Your task to perform on an android device: toggle notification dots Image 0: 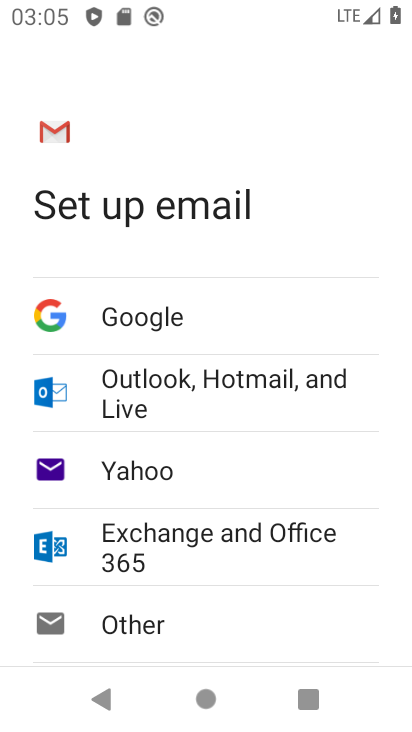
Step 0: press home button
Your task to perform on an android device: toggle notification dots Image 1: 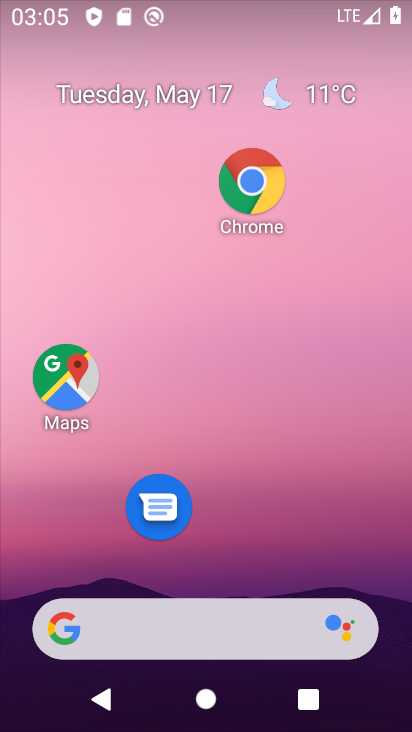
Step 1: drag from (235, 577) to (242, 390)
Your task to perform on an android device: toggle notification dots Image 2: 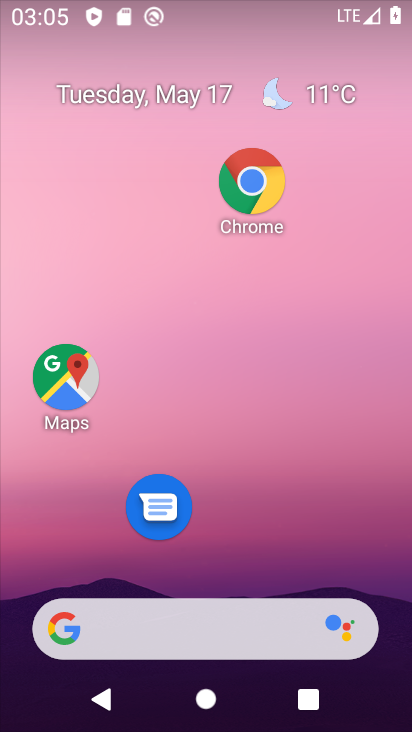
Step 2: drag from (203, 579) to (396, 367)
Your task to perform on an android device: toggle notification dots Image 3: 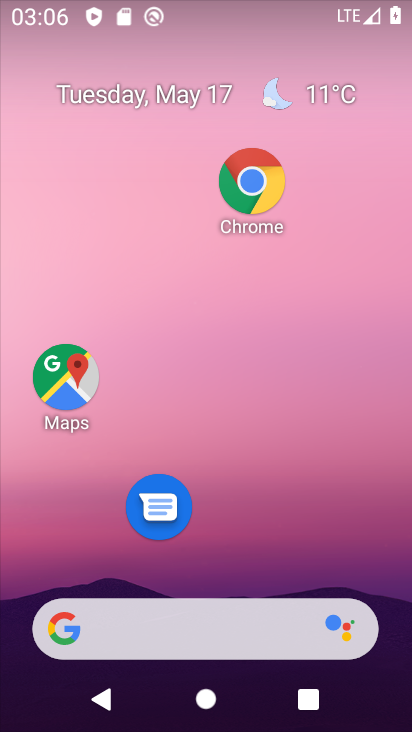
Step 3: drag from (220, 581) to (300, 191)
Your task to perform on an android device: toggle notification dots Image 4: 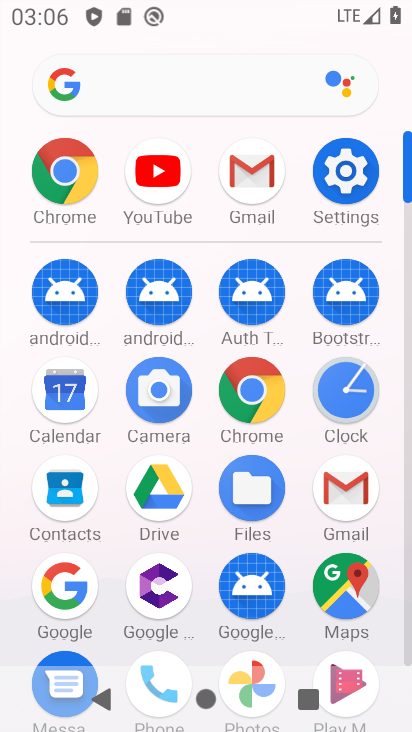
Step 4: click (358, 165)
Your task to perform on an android device: toggle notification dots Image 5: 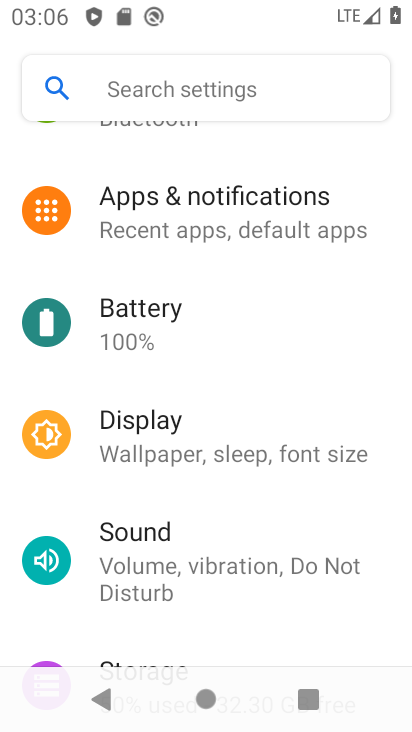
Step 5: click (224, 244)
Your task to perform on an android device: toggle notification dots Image 6: 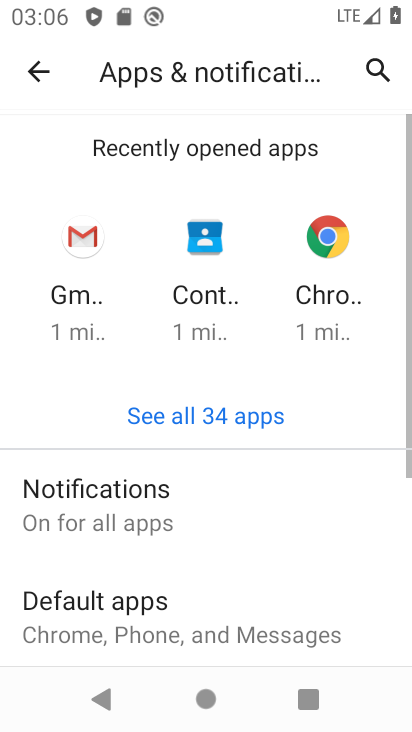
Step 6: drag from (161, 590) to (245, 145)
Your task to perform on an android device: toggle notification dots Image 7: 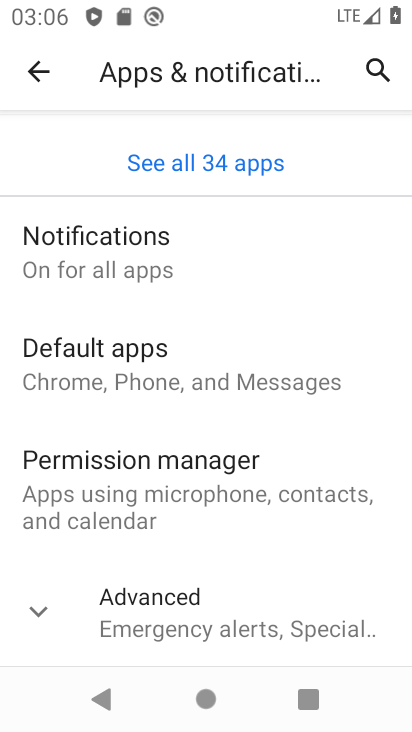
Step 7: click (154, 279)
Your task to perform on an android device: toggle notification dots Image 8: 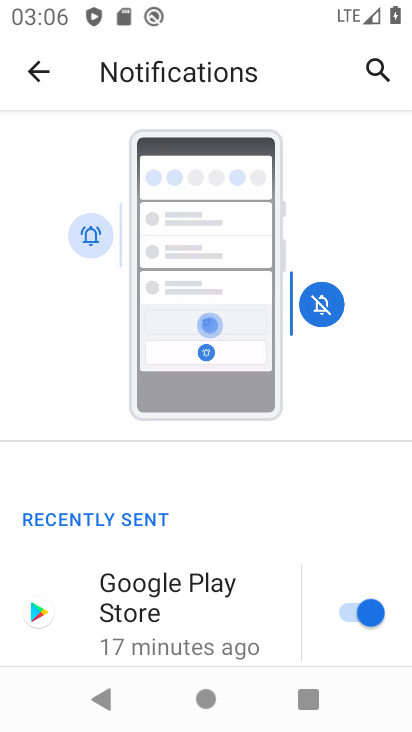
Step 8: drag from (204, 548) to (220, 49)
Your task to perform on an android device: toggle notification dots Image 9: 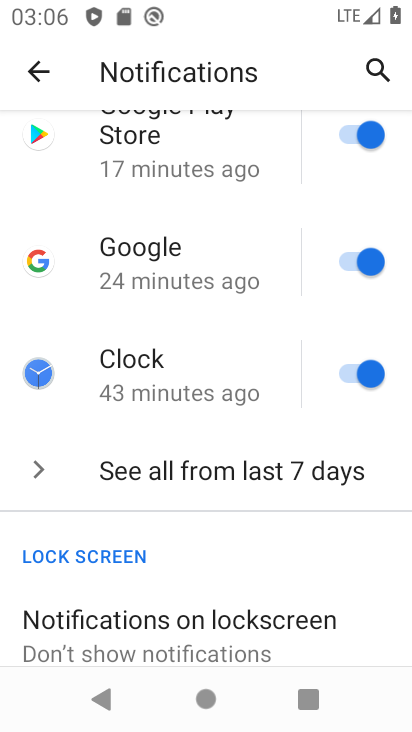
Step 9: drag from (178, 504) to (245, 130)
Your task to perform on an android device: toggle notification dots Image 10: 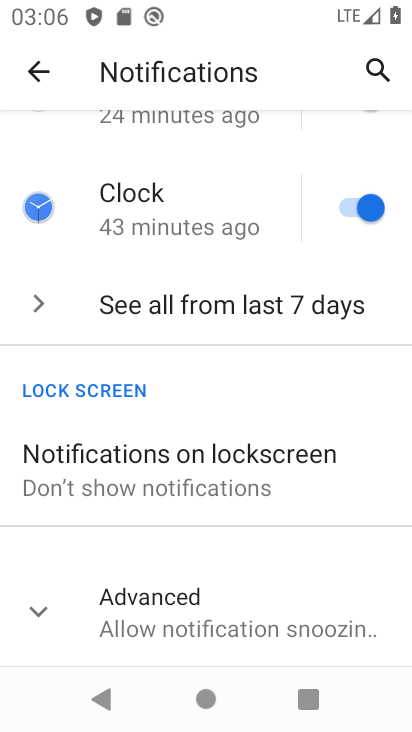
Step 10: click (130, 603)
Your task to perform on an android device: toggle notification dots Image 11: 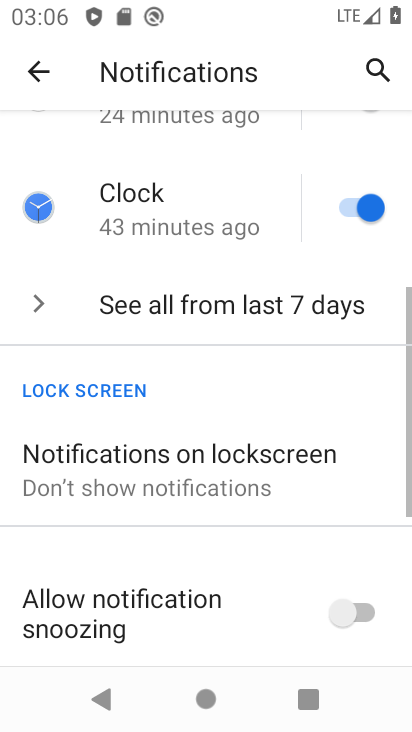
Step 11: task complete